Your task to perform on an android device: Open Chrome and go to settings Image 0: 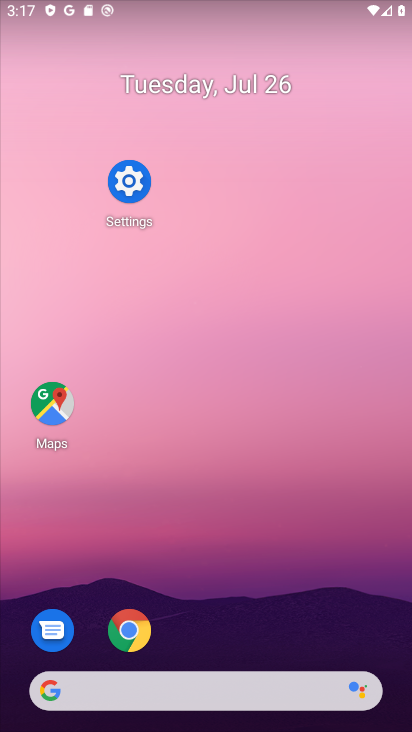
Step 0: click (135, 625)
Your task to perform on an android device: Open Chrome and go to settings Image 1: 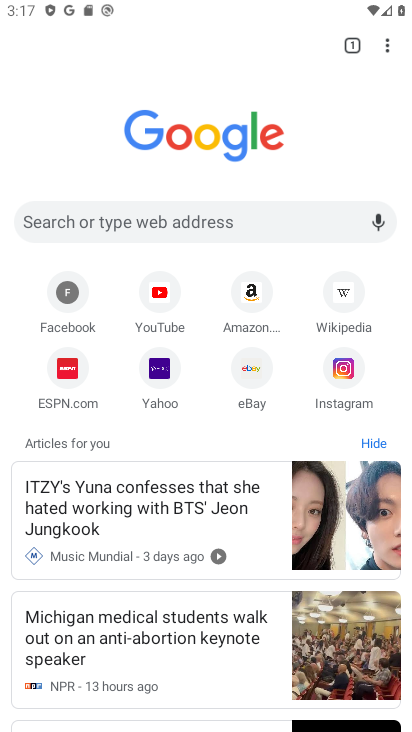
Step 1: click (402, 40)
Your task to perform on an android device: Open Chrome and go to settings Image 2: 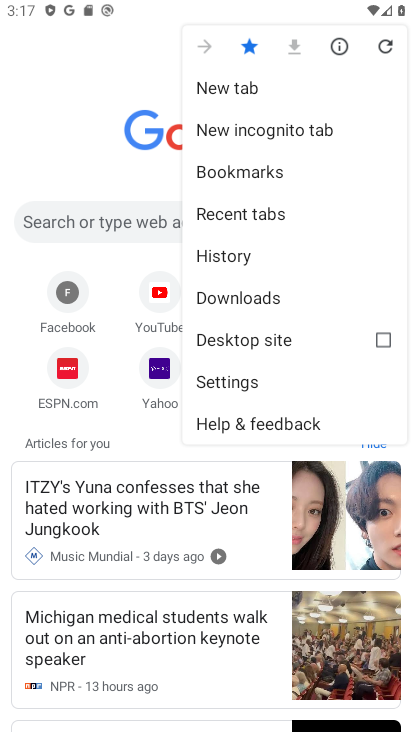
Step 2: click (255, 380)
Your task to perform on an android device: Open Chrome and go to settings Image 3: 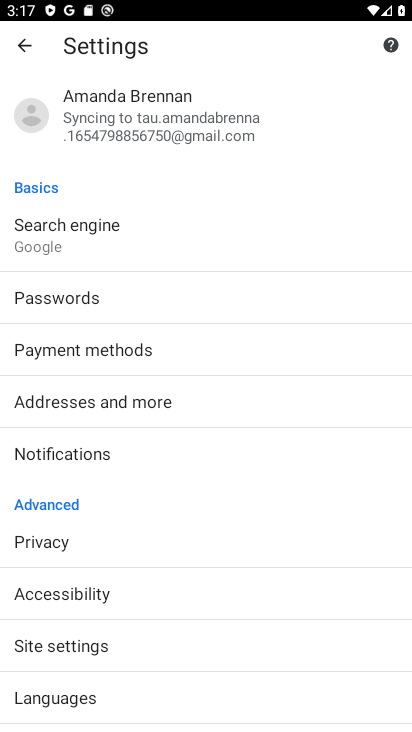
Step 3: task complete